Your task to perform on an android device: Open Chrome and go to settings Image 0: 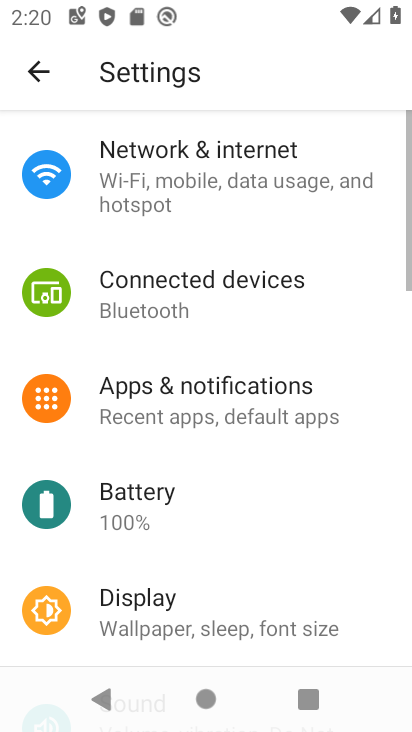
Step 0: press home button
Your task to perform on an android device: Open Chrome and go to settings Image 1: 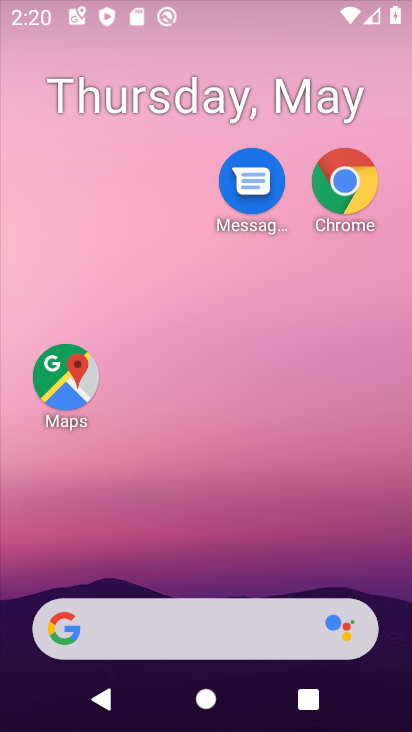
Step 1: drag from (275, 645) to (276, 8)
Your task to perform on an android device: Open Chrome and go to settings Image 2: 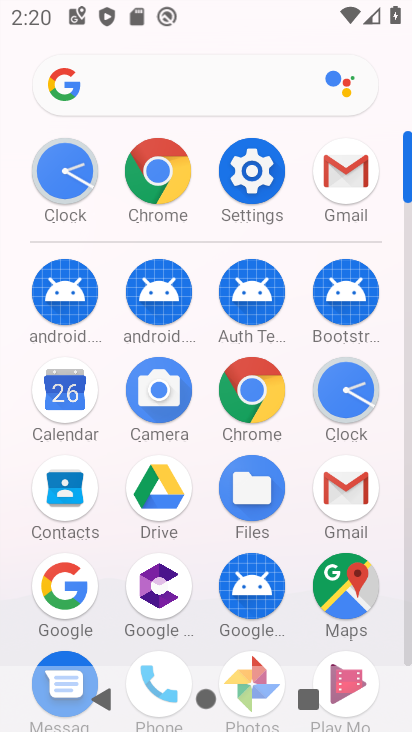
Step 2: click (273, 400)
Your task to perform on an android device: Open Chrome and go to settings Image 3: 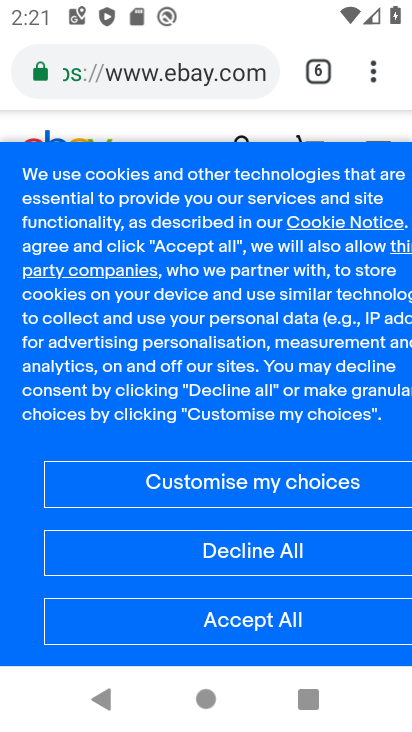
Step 3: task complete